Your task to perform on an android device: Go to Yahoo.com Image 0: 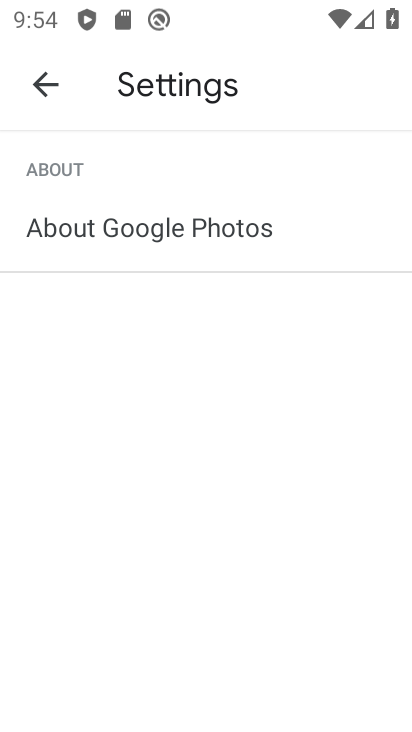
Step 0: press back button
Your task to perform on an android device: Go to Yahoo.com Image 1: 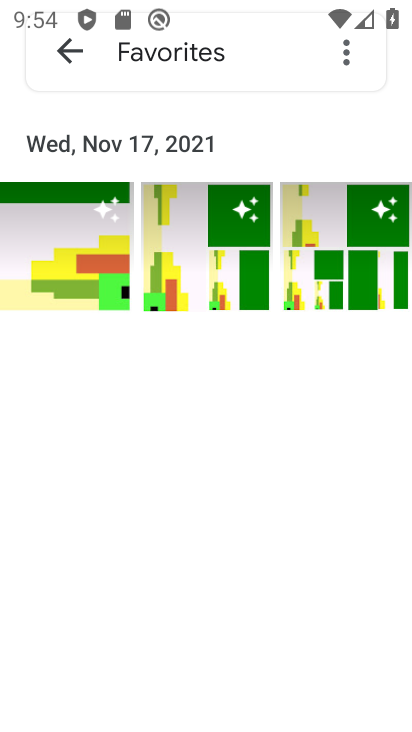
Step 1: press back button
Your task to perform on an android device: Go to Yahoo.com Image 2: 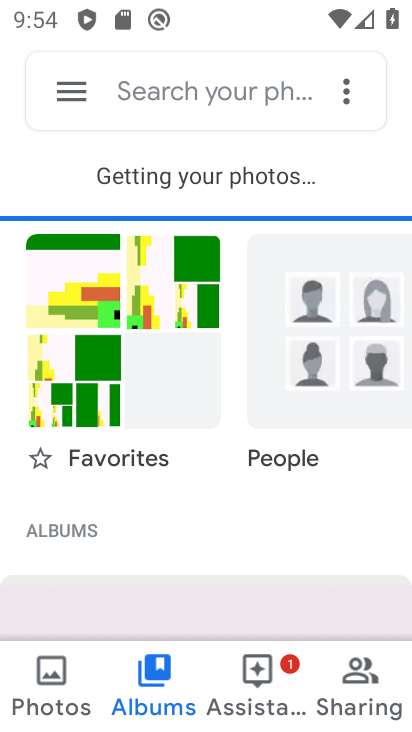
Step 2: press back button
Your task to perform on an android device: Go to Yahoo.com Image 3: 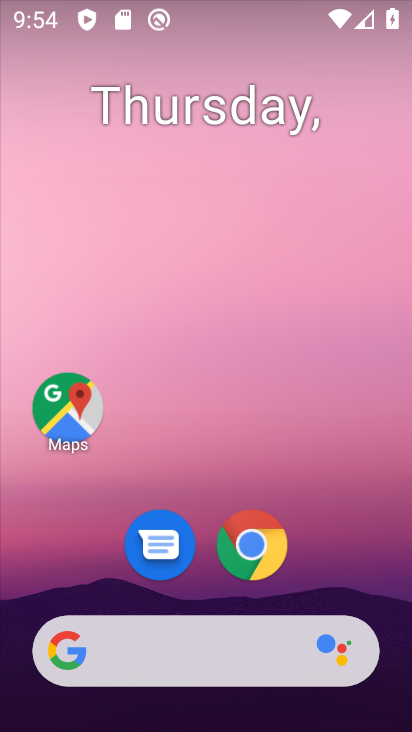
Step 3: click (251, 545)
Your task to perform on an android device: Go to Yahoo.com Image 4: 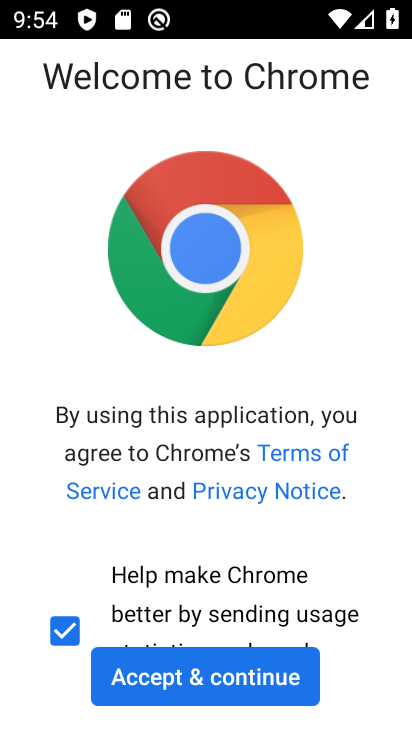
Step 4: click (209, 668)
Your task to perform on an android device: Go to Yahoo.com Image 5: 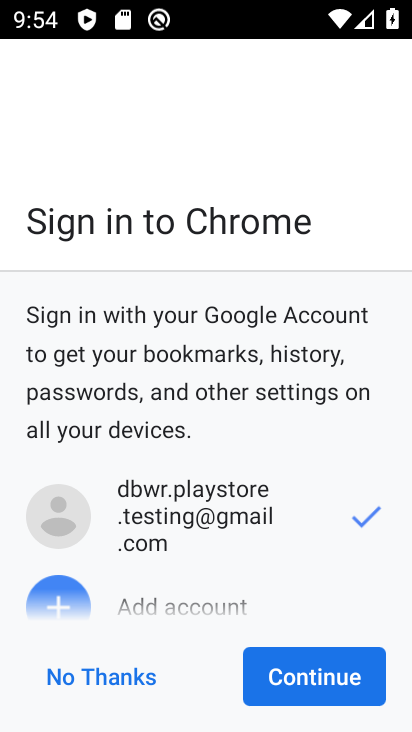
Step 5: click (291, 672)
Your task to perform on an android device: Go to Yahoo.com Image 6: 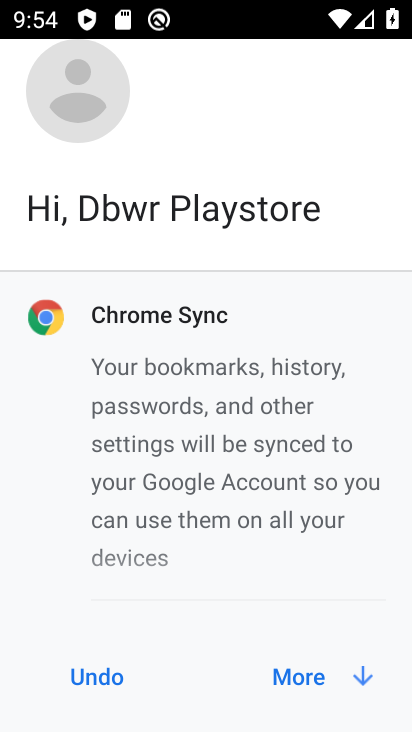
Step 6: click (291, 672)
Your task to perform on an android device: Go to Yahoo.com Image 7: 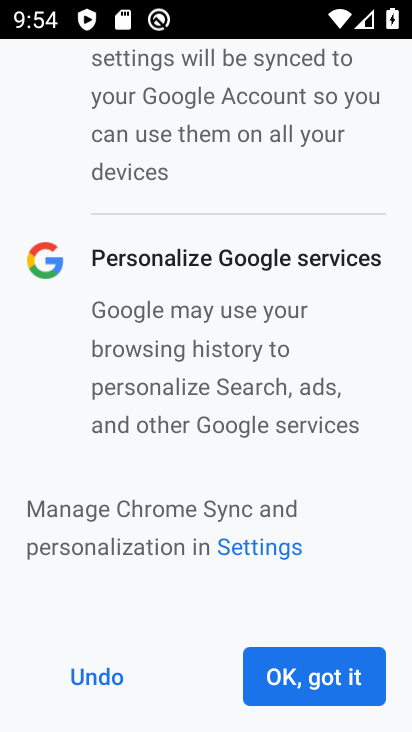
Step 7: click (312, 685)
Your task to perform on an android device: Go to Yahoo.com Image 8: 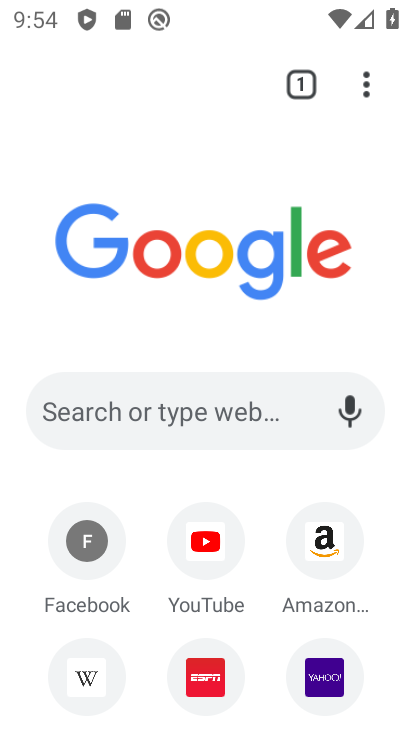
Step 8: click (223, 418)
Your task to perform on an android device: Go to Yahoo.com Image 9: 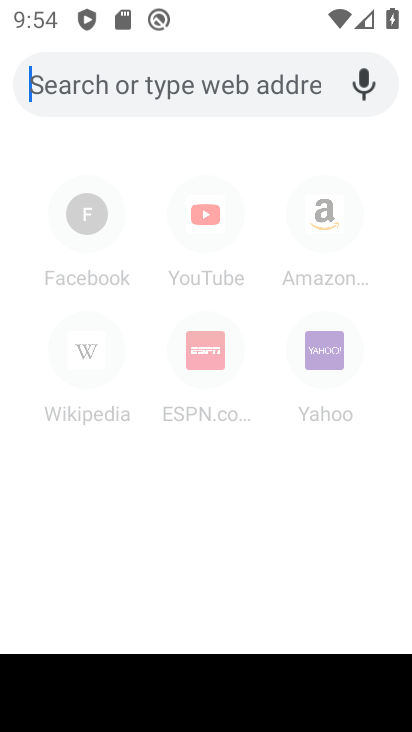
Step 9: type "Yahoo.com"
Your task to perform on an android device: Go to Yahoo.com Image 10: 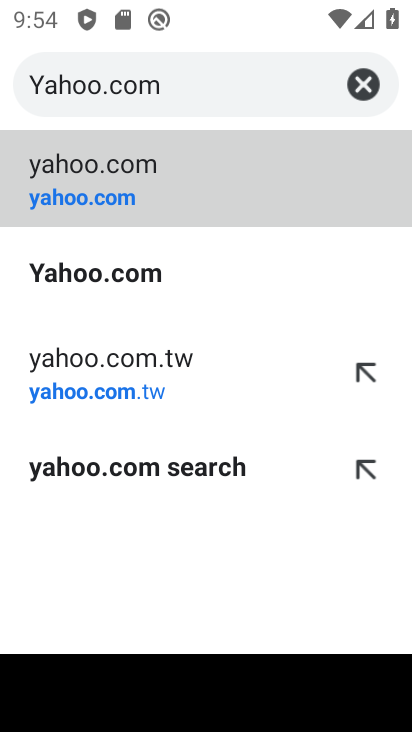
Step 10: click (134, 265)
Your task to perform on an android device: Go to Yahoo.com Image 11: 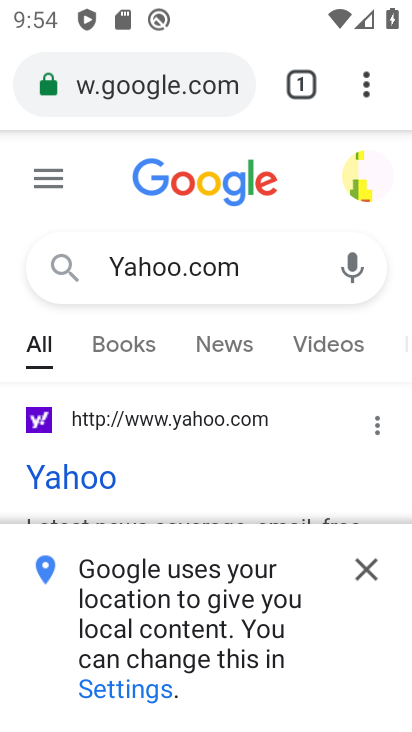
Step 11: click (95, 475)
Your task to perform on an android device: Go to Yahoo.com Image 12: 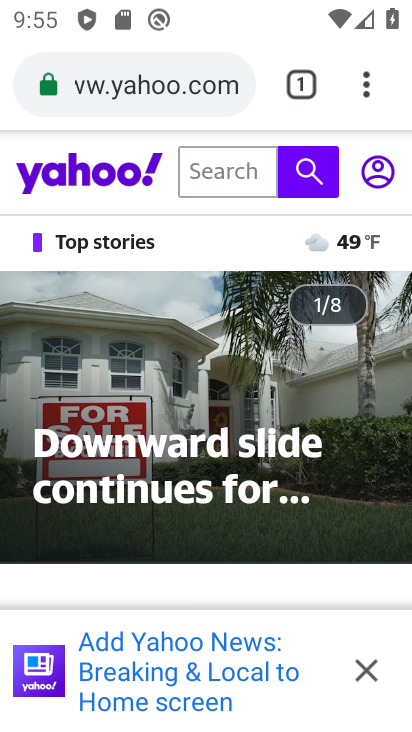
Step 12: task complete